Your task to perform on an android device: What's the weather today? Image 0: 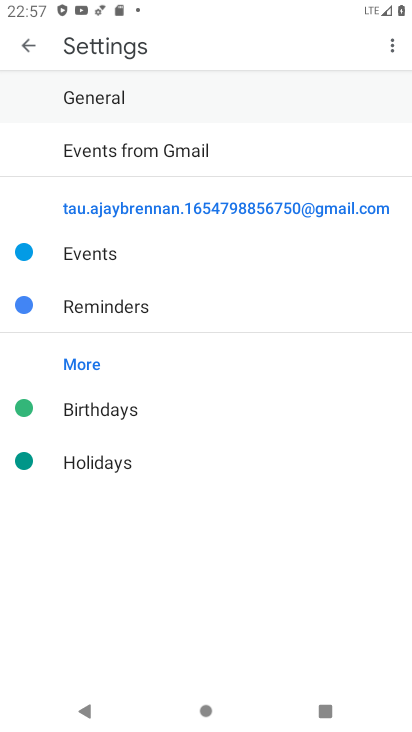
Step 0: press home button
Your task to perform on an android device: What's the weather today? Image 1: 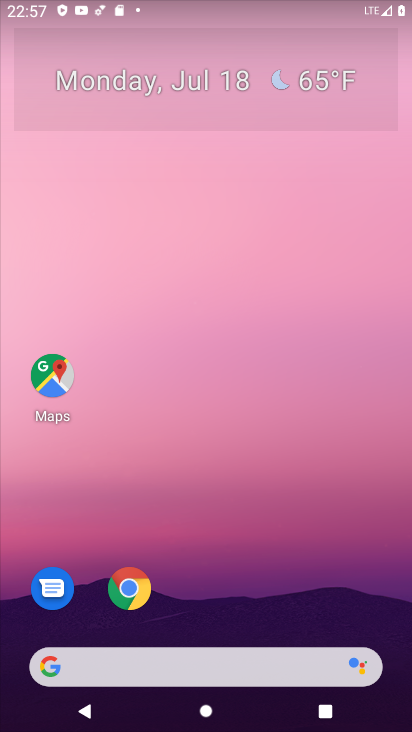
Step 1: click (57, 665)
Your task to perform on an android device: What's the weather today? Image 2: 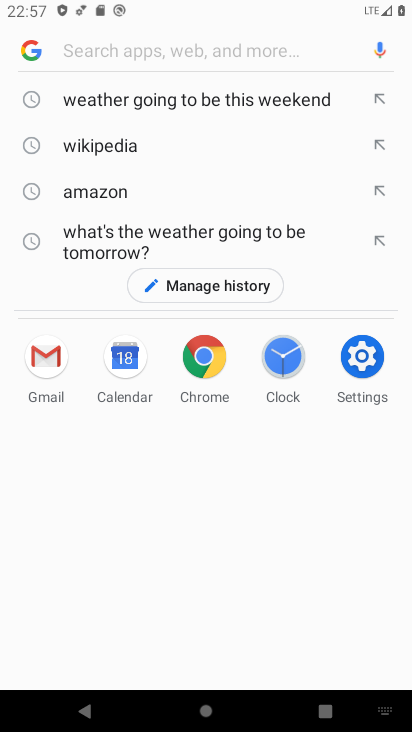
Step 2: type " weather today"
Your task to perform on an android device: What's the weather today? Image 3: 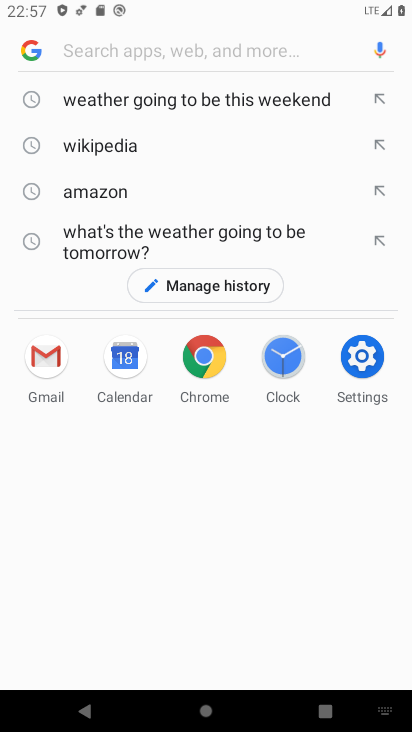
Step 3: click (120, 48)
Your task to perform on an android device: What's the weather today? Image 4: 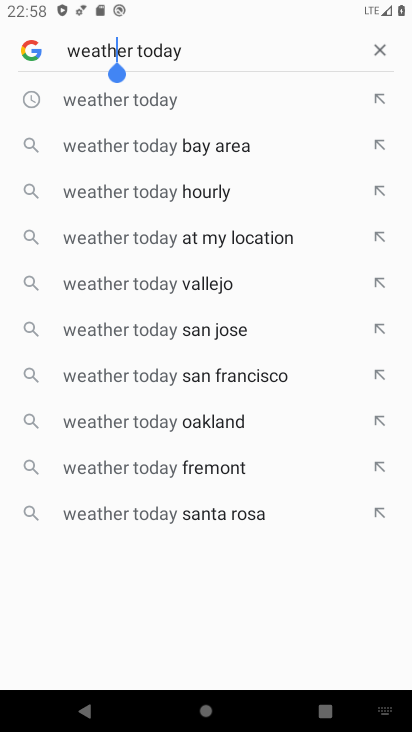
Step 4: press enter
Your task to perform on an android device: What's the weather today? Image 5: 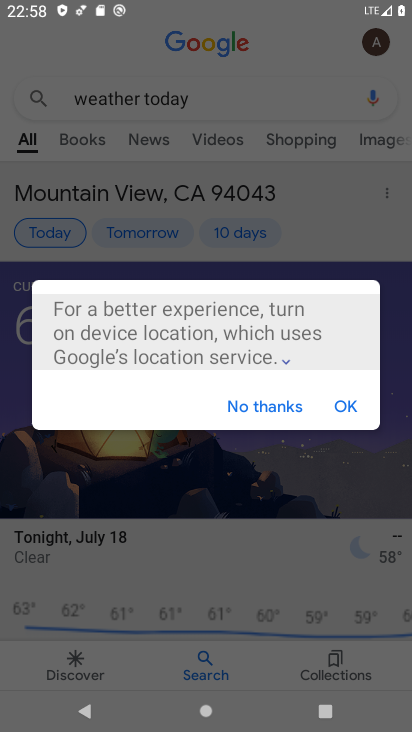
Step 5: click (275, 402)
Your task to perform on an android device: What's the weather today? Image 6: 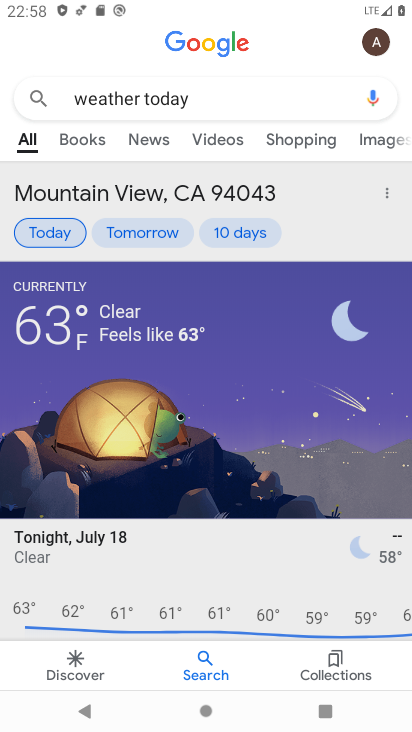
Step 6: task complete